Your task to perform on an android device: check battery use Image 0: 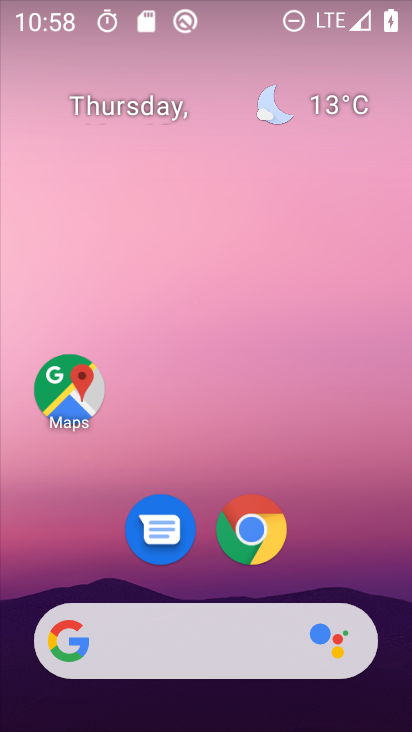
Step 0: click (50, 728)
Your task to perform on an android device: check battery use Image 1: 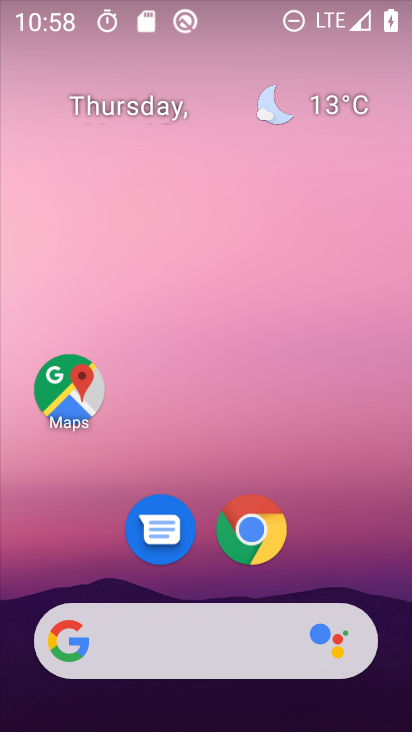
Step 1: drag from (351, 466) to (257, 135)
Your task to perform on an android device: check battery use Image 2: 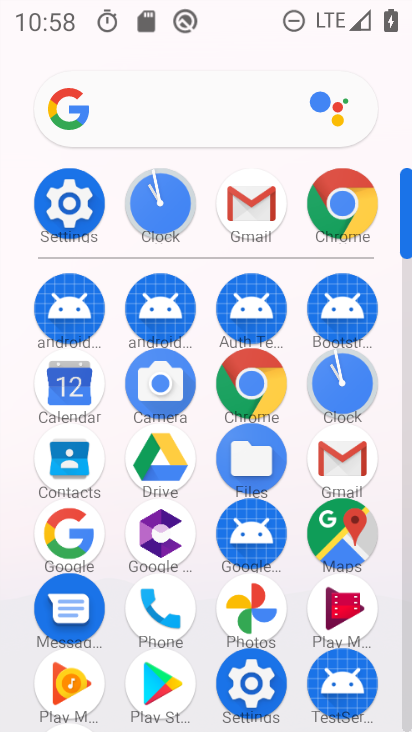
Step 2: click (52, 218)
Your task to perform on an android device: check battery use Image 3: 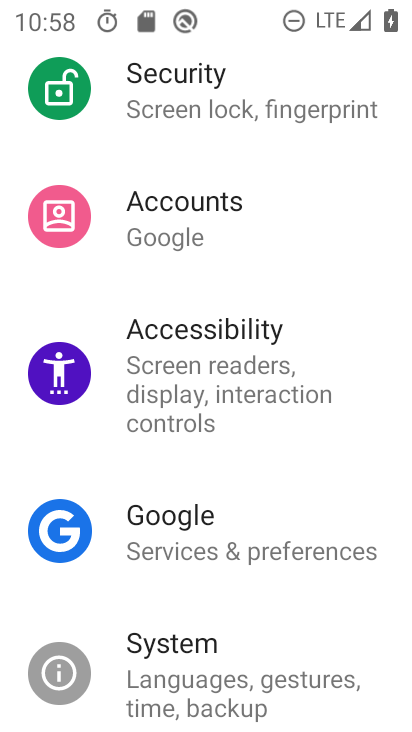
Step 3: drag from (269, 149) to (283, 536)
Your task to perform on an android device: check battery use Image 4: 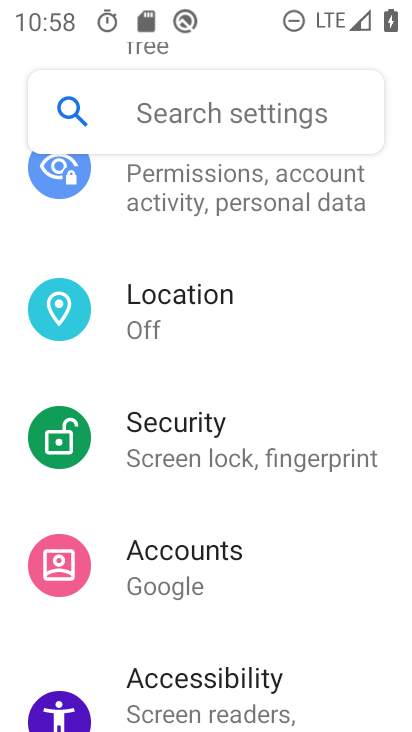
Step 4: drag from (242, 307) to (247, 637)
Your task to perform on an android device: check battery use Image 5: 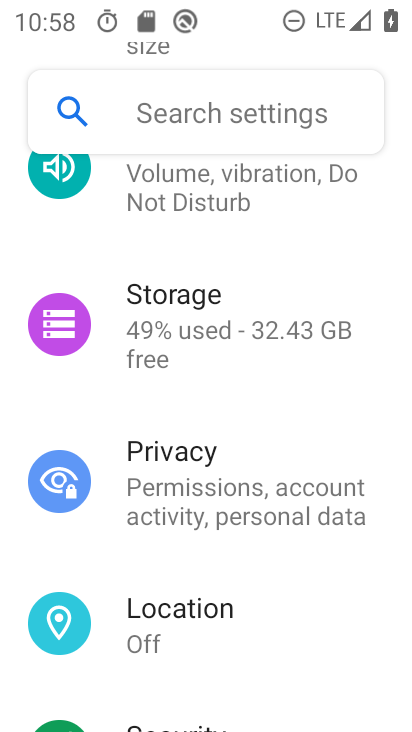
Step 5: drag from (257, 363) to (273, 646)
Your task to perform on an android device: check battery use Image 6: 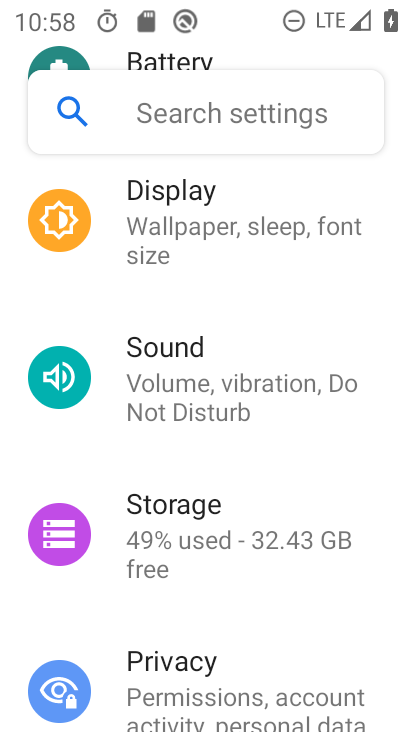
Step 6: drag from (255, 298) to (228, 599)
Your task to perform on an android device: check battery use Image 7: 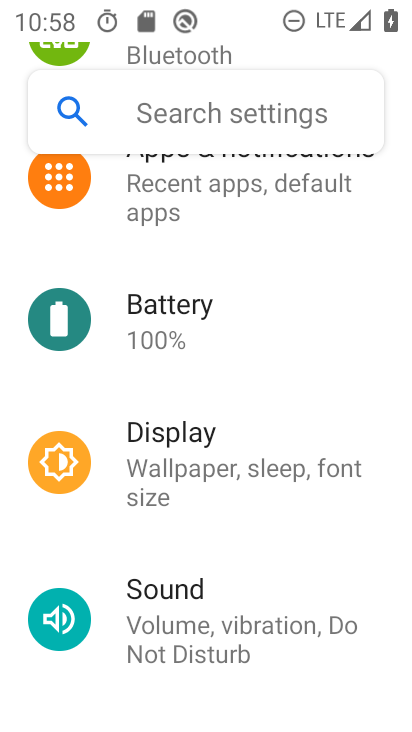
Step 7: click (231, 300)
Your task to perform on an android device: check battery use Image 8: 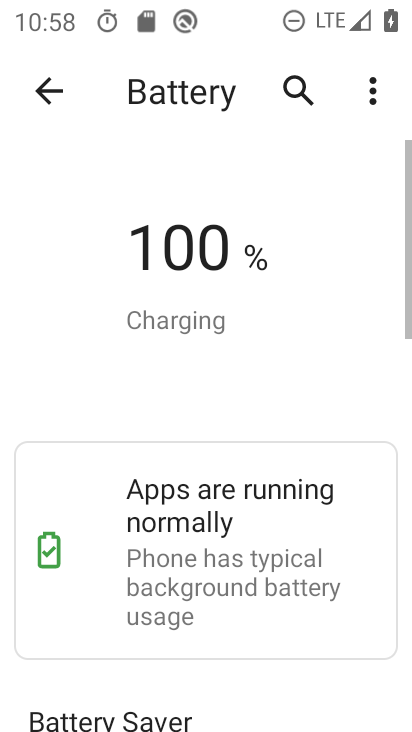
Step 8: drag from (274, 564) to (184, 248)
Your task to perform on an android device: check battery use Image 9: 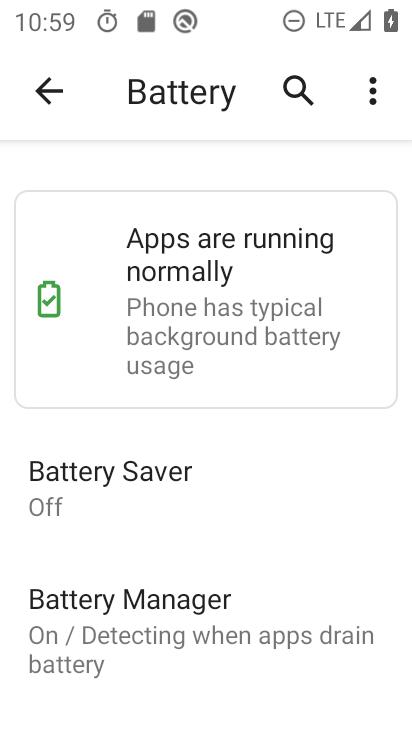
Step 9: drag from (241, 537) to (183, 257)
Your task to perform on an android device: check battery use Image 10: 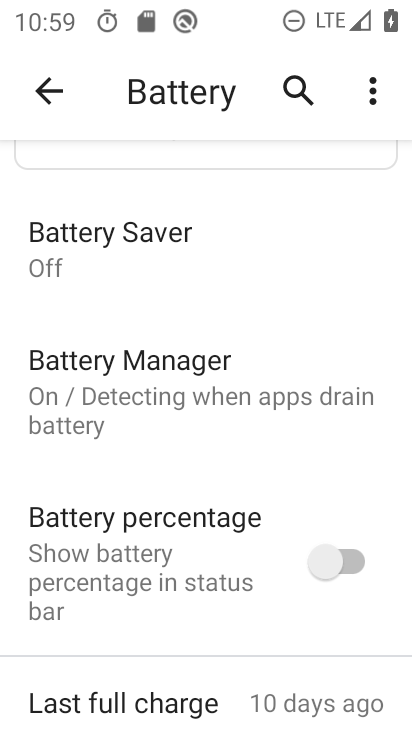
Step 10: drag from (166, 561) to (121, 225)
Your task to perform on an android device: check battery use Image 11: 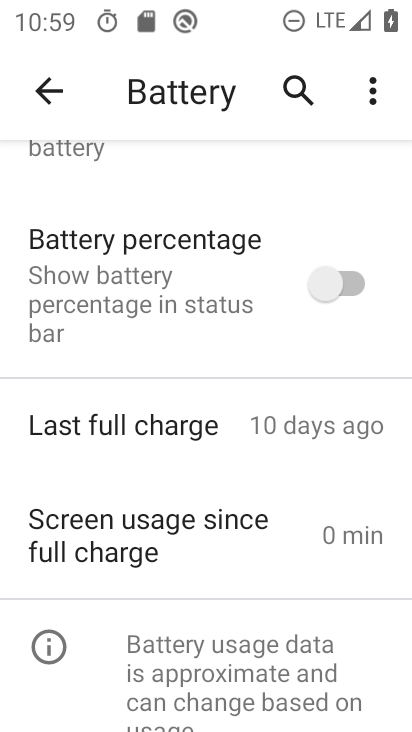
Step 11: drag from (206, 530) to (160, 194)
Your task to perform on an android device: check battery use Image 12: 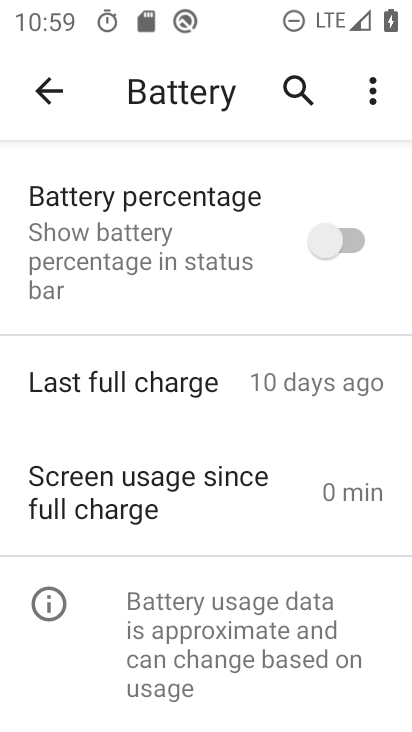
Step 12: drag from (192, 237) to (185, 575)
Your task to perform on an android device: check battery use Image 13: 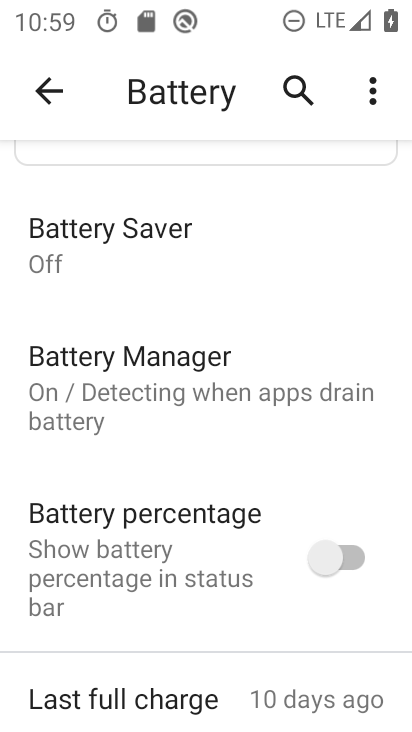
Step 13: drag from (199, 246) to (196, 586)
Your task to perform on an android device: check battery use Image 14: 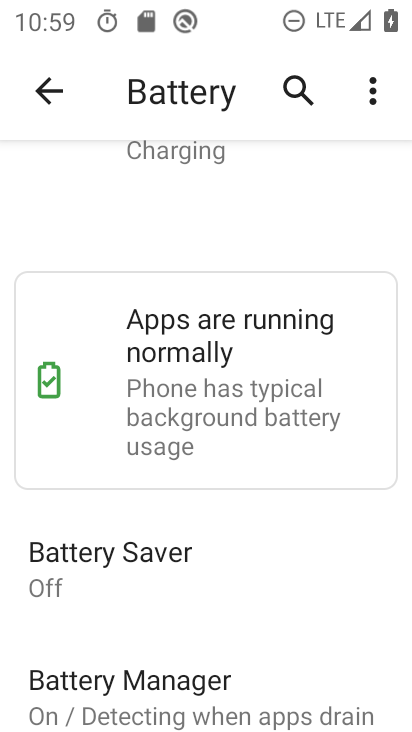
Step 14: drag from (239, 229) to (221, 585)
Your task to perform on an android device: check battery use Image 15: 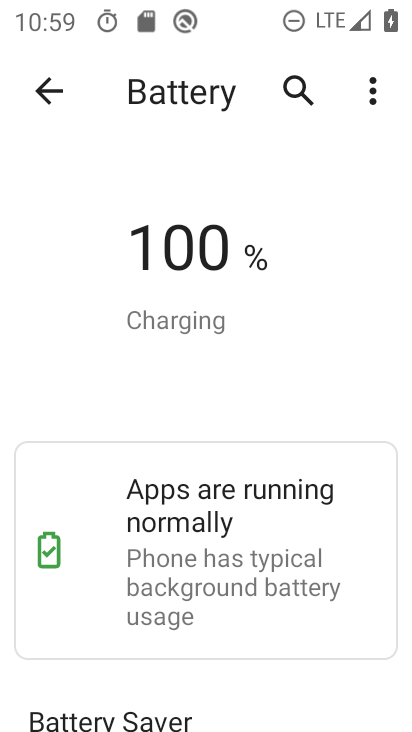
Step 15: drag from (297, 521) to (265, 242)
Your task to perform on an android device: check battery use Image 16: 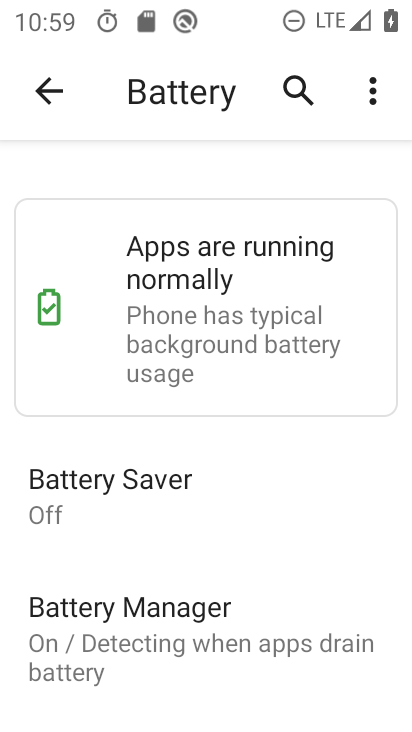
Step 16: click (184, 626)
Your task to perform on an android device: check battery use Image 17: 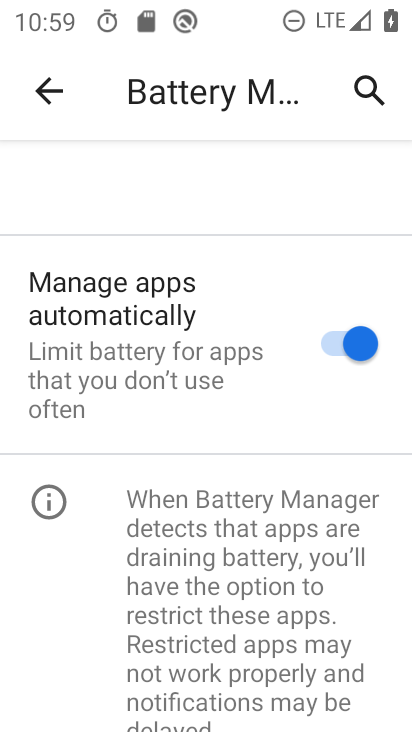
Step 17: drag from (191, 599) to (107, 177)
Your task to perform on an android device: check battery use Image 18: 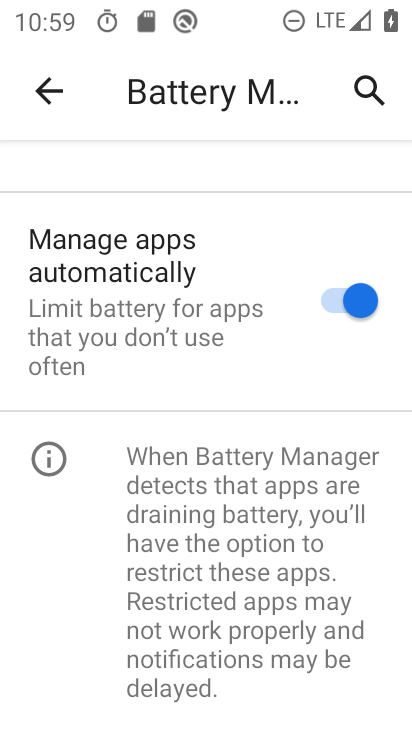
Step 18: drag from (179, 361) to (179, 644)
Your task to perform on an android device: check battery use Image 19: 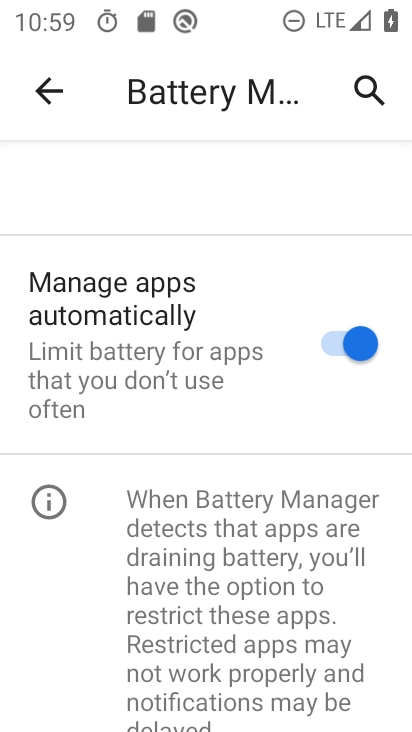
Step 19: click (43, 101)
Your task to perform on an android device: check battery use Image 20: 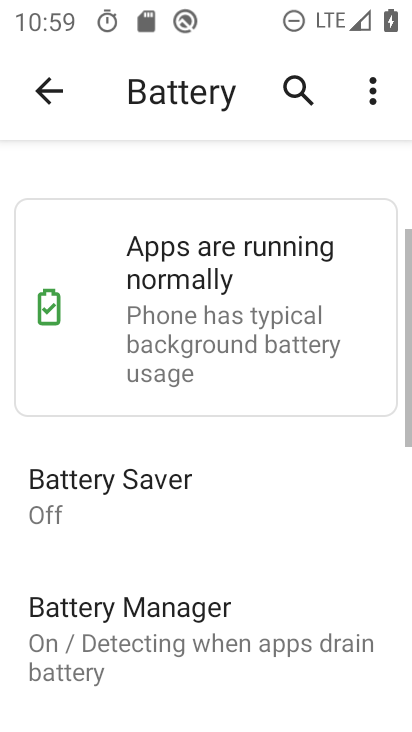
Step 20: click (157, 493)
Your task to perform on an android device: check battery use Image 21: 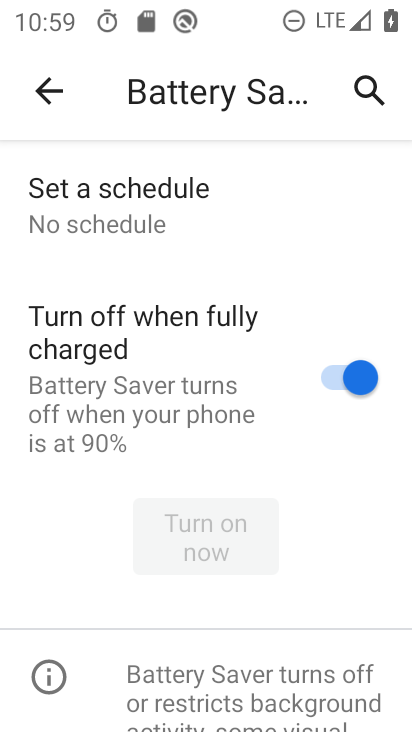
Step 21: drag from (281, 595) to (214, 295)
Your task to perform on an android device: check battery use Image 22: 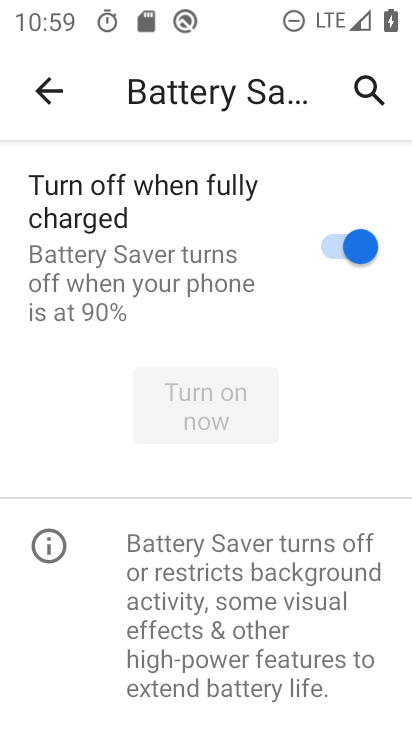
Step 22: click (51, 90)
Your task to perform on an android device: check battery use Image 23: 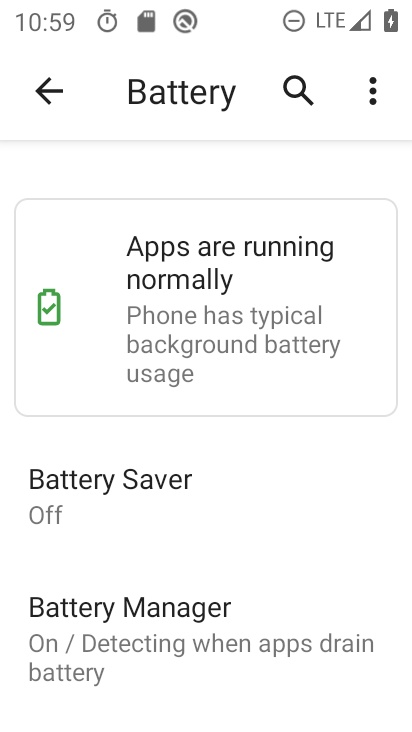
Step 23: drag from (235, 572) to (180, 213)
Your task to perform on an android device: check battery use Image 24: 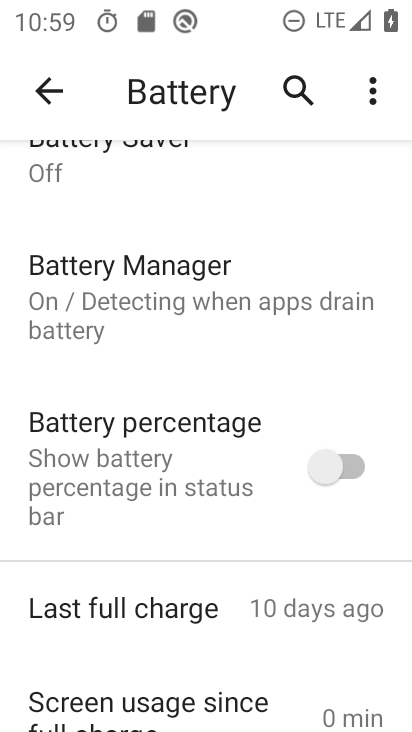
Step 24: drag from (149, 627) to (105, 265)
Your task to perform on an android device: check battery use Image 25: 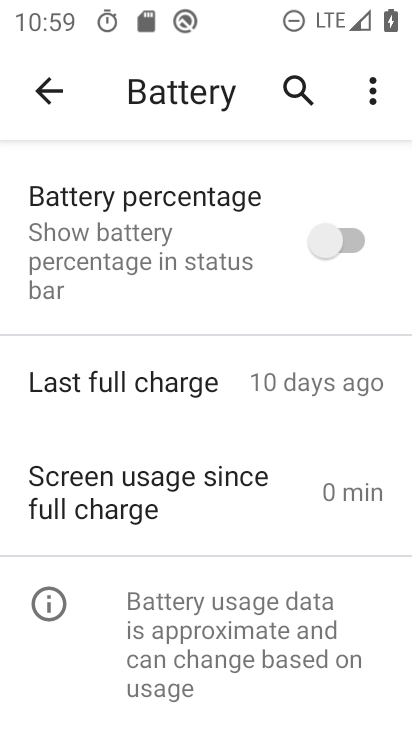
Step 25: drag from (198, 654) to (178, 365)
Your task to perform on an android device: check battery use Image 26: 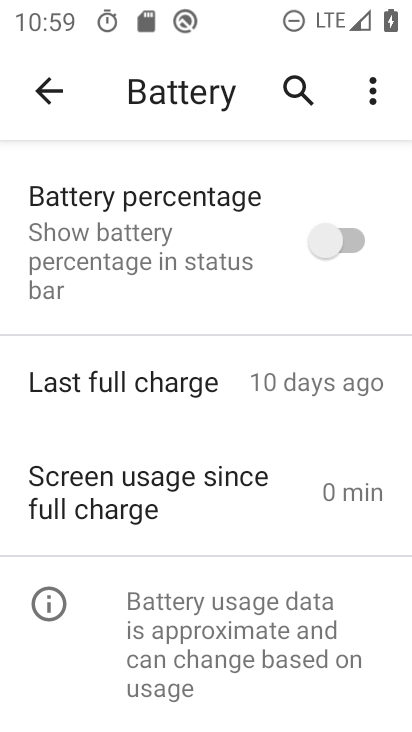
Step 26: click (175, 631)
Your task to perform on an android device: check battery use Image 27: 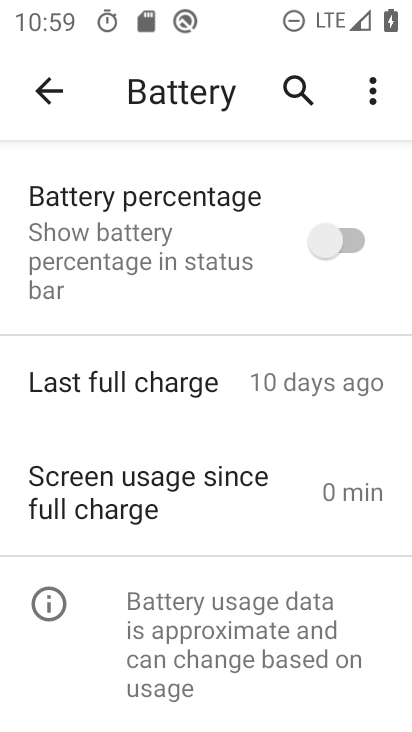
Step 27: click (114, 491)
Your task to perform on an android device: check battery use Image 28: 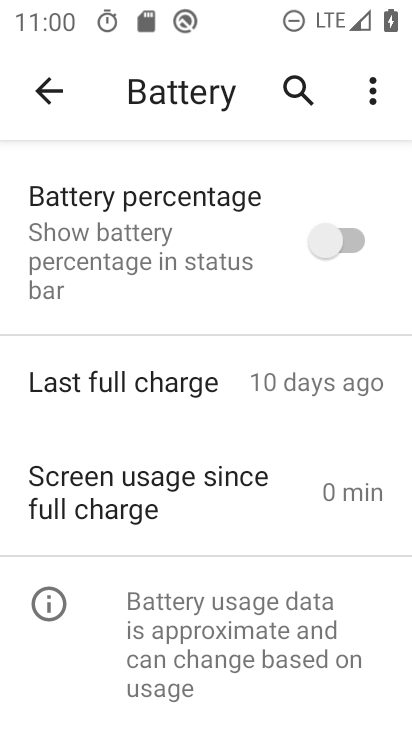
Step 28: click (86, 261)
Your task to perform on an android device: check battery use Image 29: 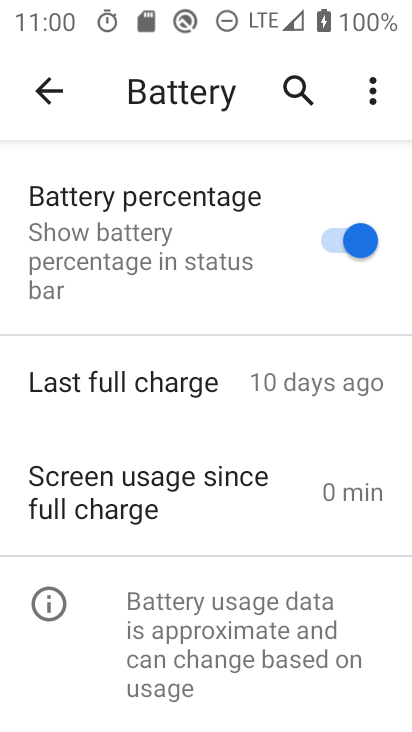
Step 29: click (86, 261)
Your task to perform on an android device: check battery use Image 30: 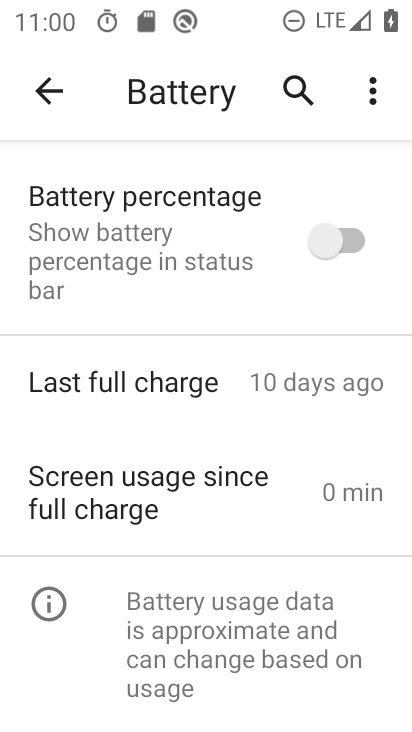
Step 30: drag from (150, 250) to (161, 616)
Your task to perform on an android device: check battery use Image 31: 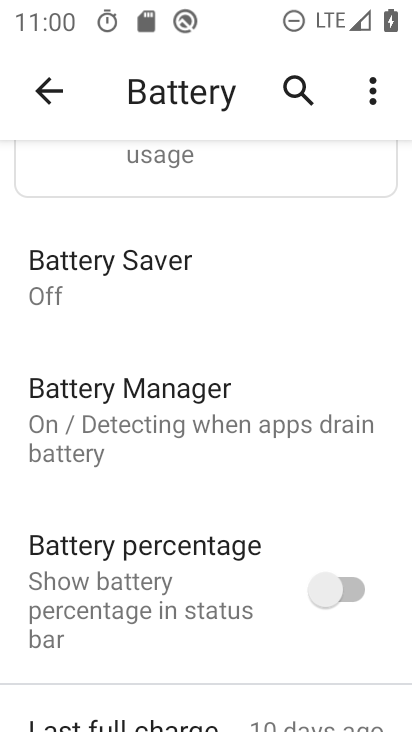
Step 31: click (163, 410)
Your task to perform on an android device: check battery use Image 32: 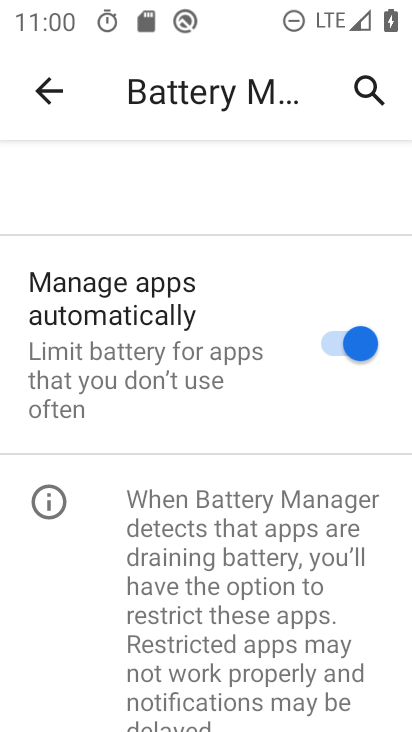
Step 32: task complete